Your task to perform on an android device: Show me recent news Image 0: 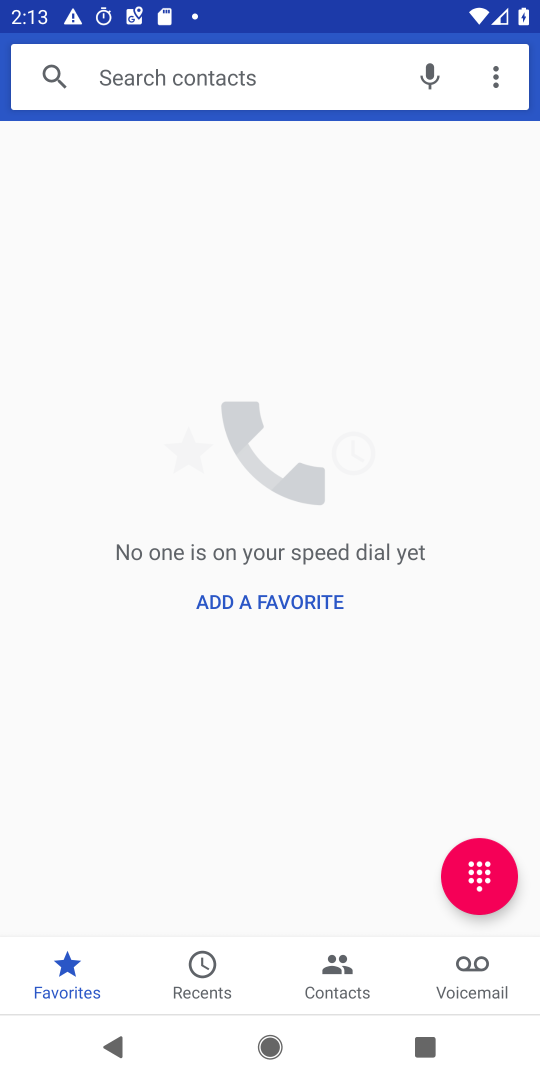
Step 0: press home button
Your task to perform on an android device: Show me recent news Image 1: 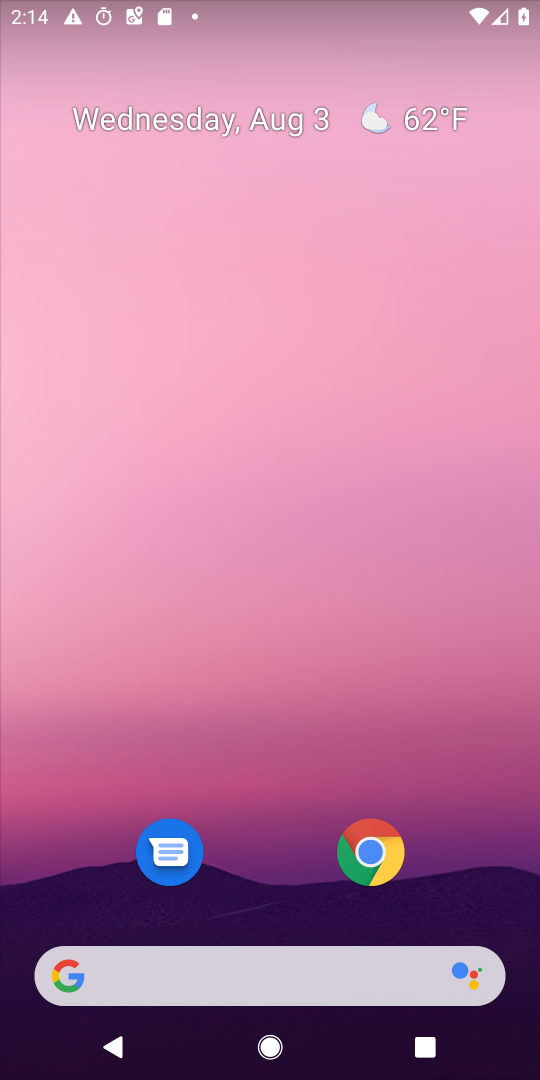
Step 1: drag from (479, 776) to (288, 27)
Your task to perform on an android device: Show me recent news Image 2: 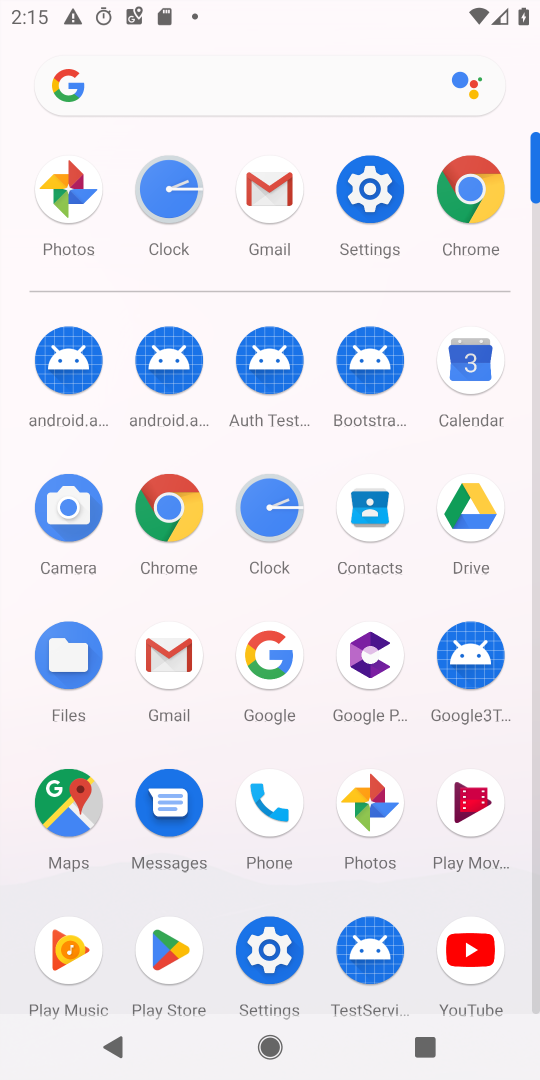
Step 2: click (262, 688)
Your task to perform on an android device: Show me recent news Image 3: 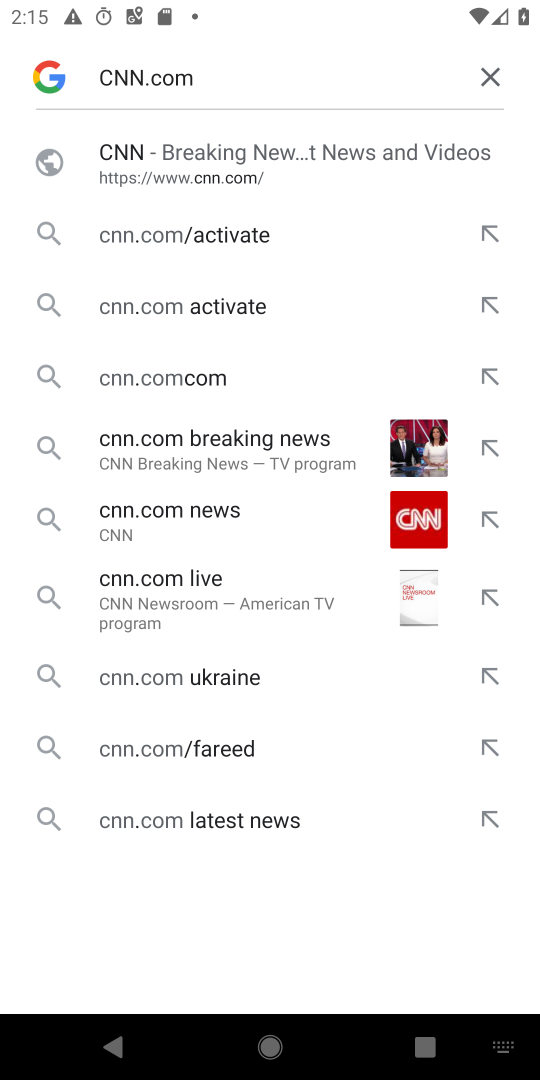
Step 3: click (479, 73)
Your task to perform on an android device: Show me recent news Image 4: 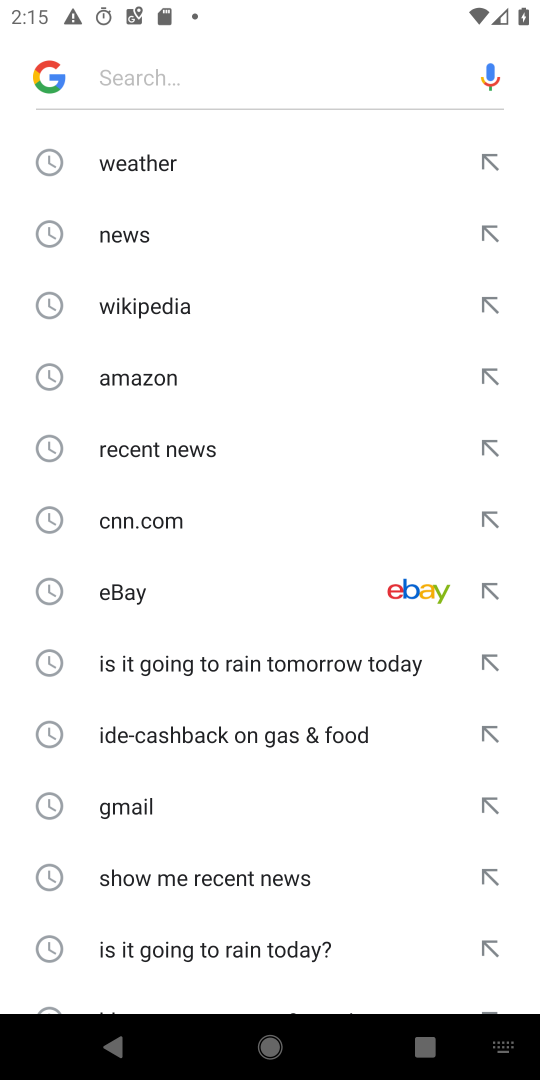
Step 4: type "Show me recent news"
Your task to perform on an android device: Show me recent news Image 5: 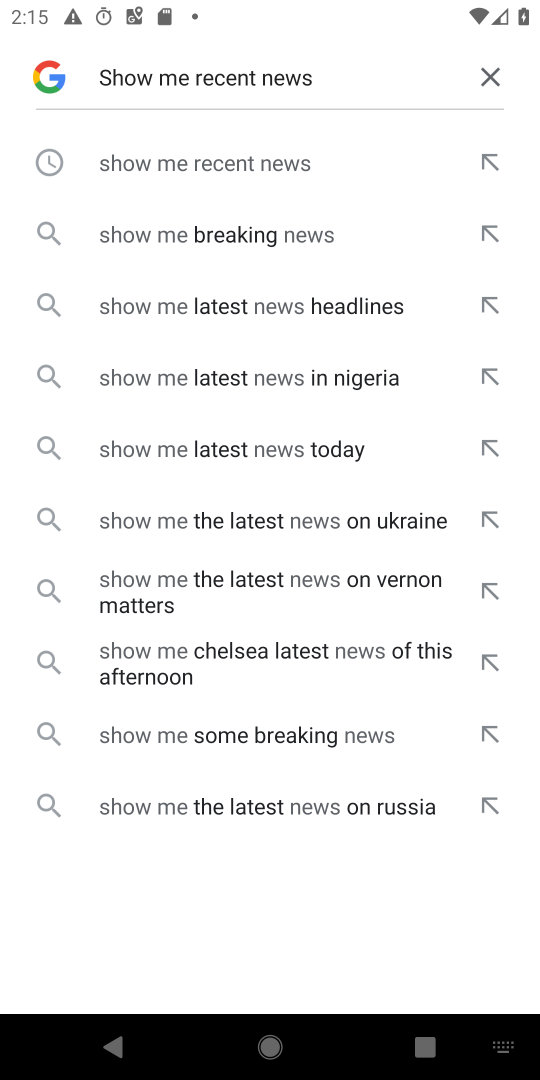
Step 5: click (209, 176)
Your task to perform on an android device: Show me recent news Image 6: 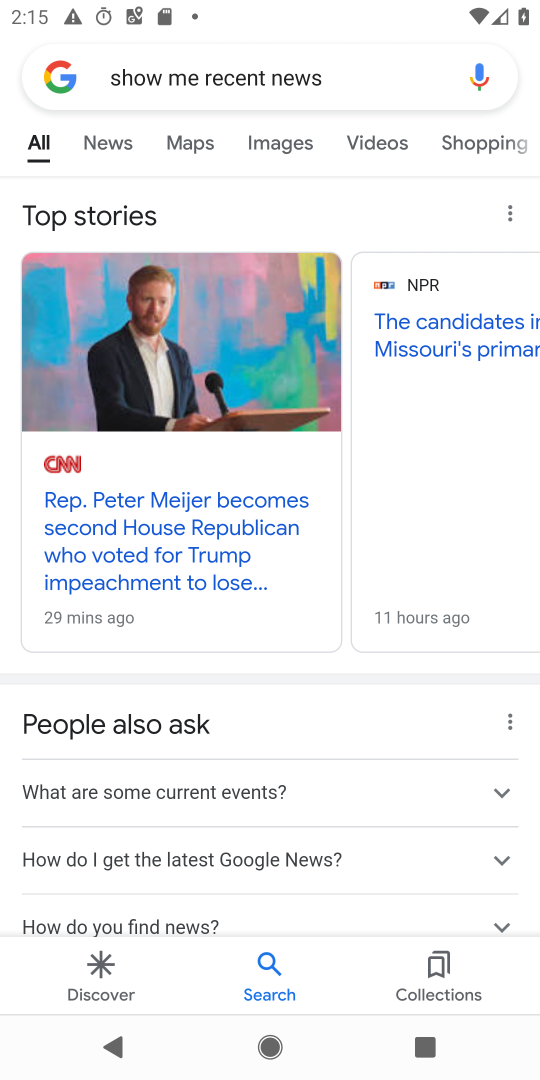
Step 6: task complete